Your task to perform on an android device: add a contact in the contacts app Image 0: 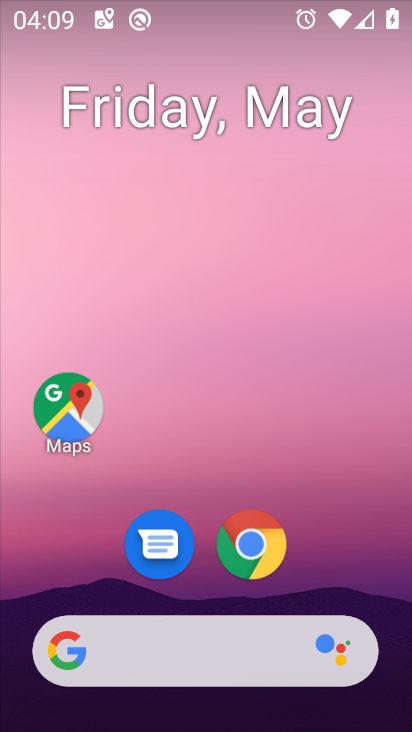
Step 0: drag from (213, 598) to (115, 270)
Your task to perform on an android device: add a contact in the contacts app Image 1: 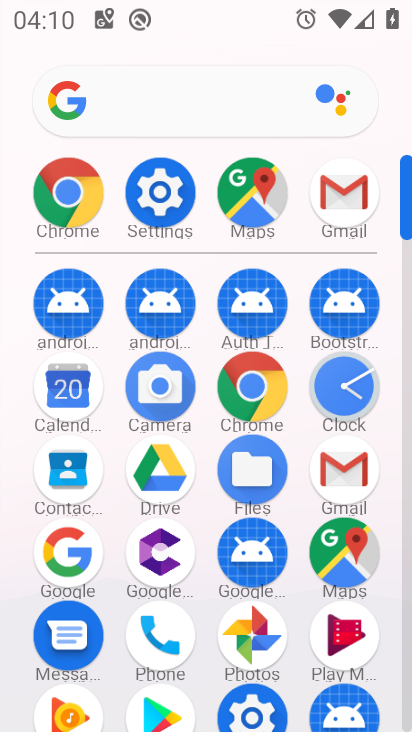
Step 1: click (63, 472)
Your task to perform on an android device: add a contact in the contacts app Image 2: 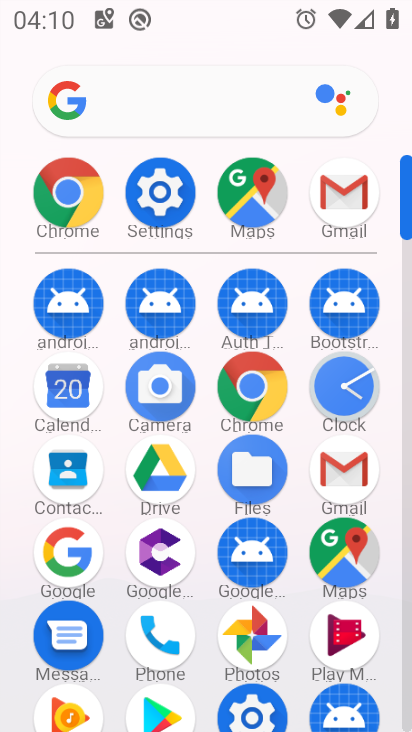
Step 2: click (62, 471)
Your task to perform on an android device: add a contact in the contacts app Image 3: 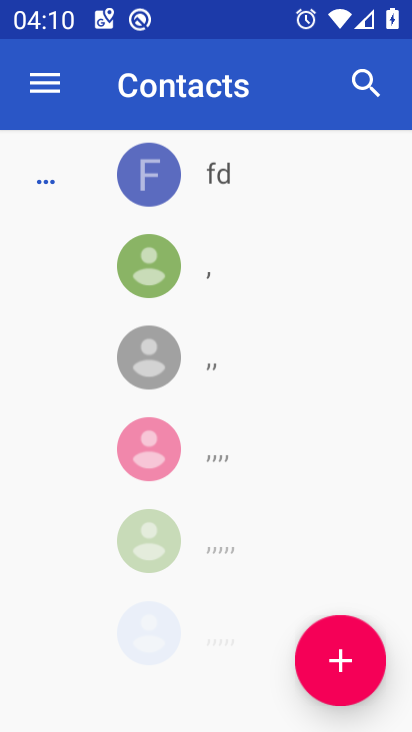
Step 3: click (61, 470)
Your task to perform on an android device: add a contact in the contacts app Image 4: 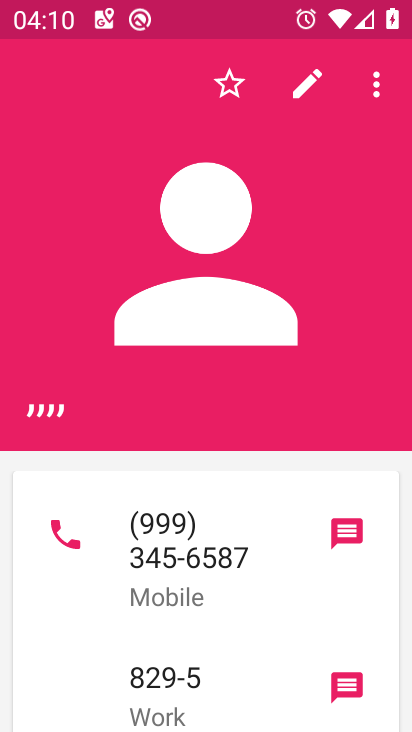
Step 4: press back button
Your task to perform on an android device: add a contact in the contacts app Image 5: 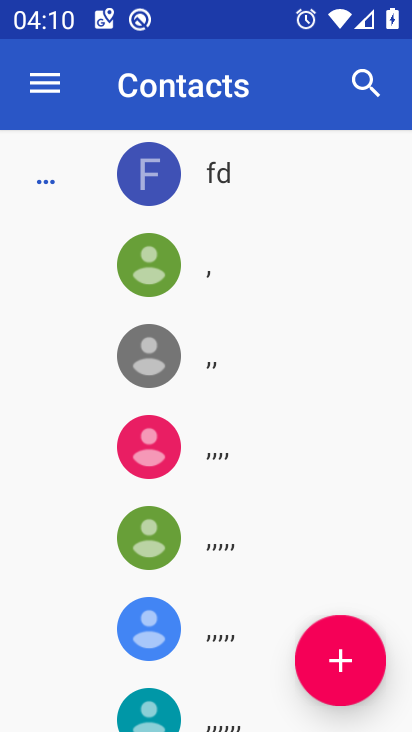
Step 5: click (329, 652)
Your task to perform on an android device: add a contact in the contacts app Image 6: 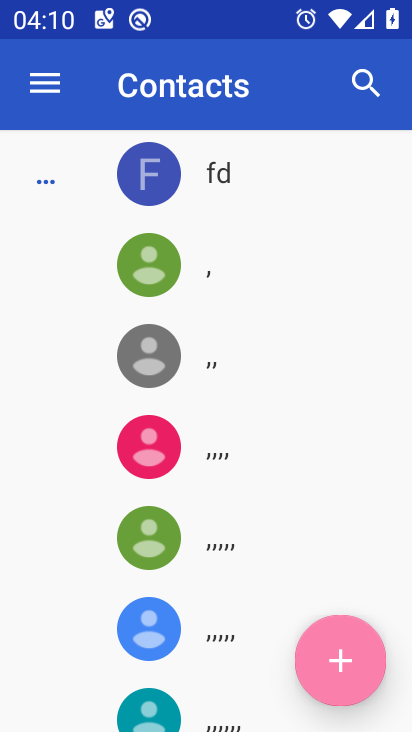
Step 6: click (333, 658)
Your task to perform on an android device: add a contact in the contacts app Image 7: 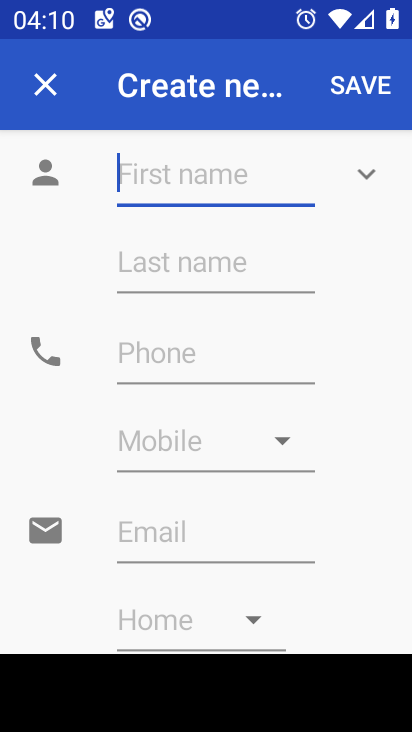
Step 7: type "jhbbvffkjvfdjkvji"
Your task to perform on an android device: add a contact in the contacts app Image 8: 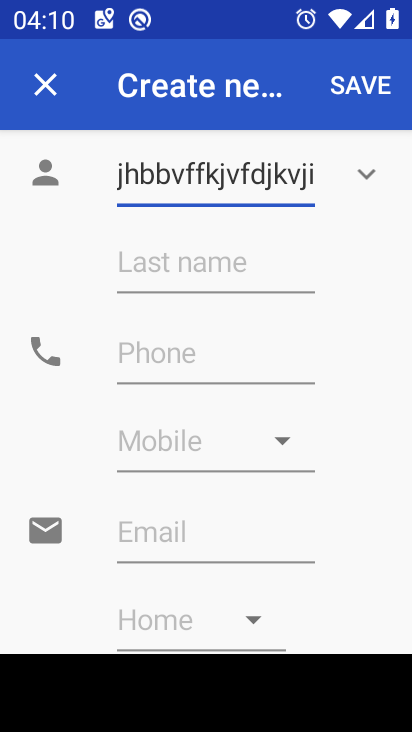
Step 8: click (153, 353)
Your task to perform on an android device: add a contact in the contacts app Image 9: 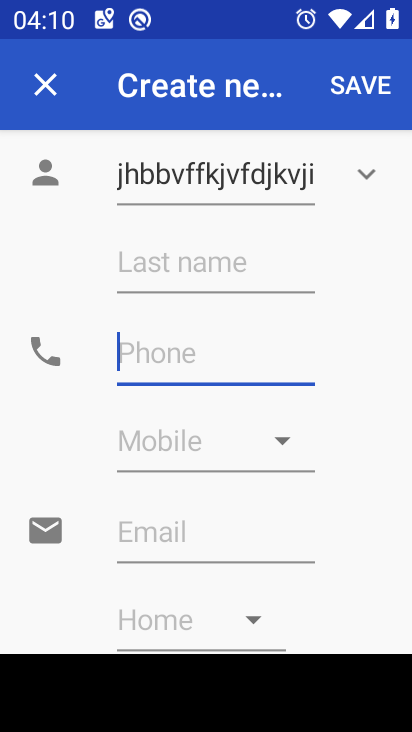
Step 9: type "678876987489274"
Your task to perform on an android device: add a contact in the contacts app Image 10: 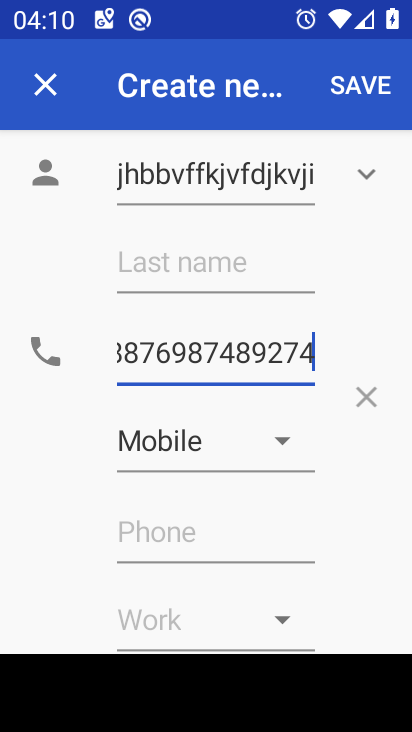
Step 10: click (338, 89)
Your task to perform on an android device: add a contact in the contacts app Image 11: 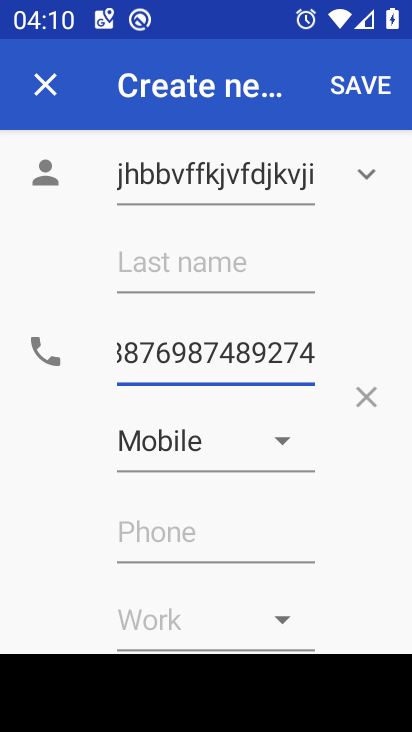
Step 11: click (338, 89)
Your task to perform on an android device: add a contact in the contacts app Image 12: 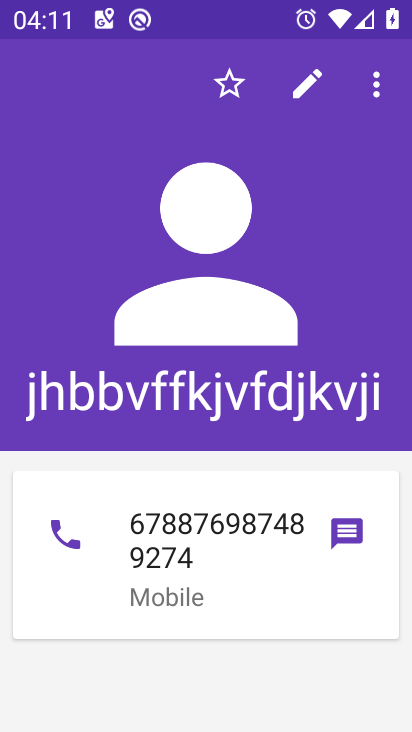
Step 12: press back button
Your task to perform on an android device: add a contact in the contacts app Image 13: 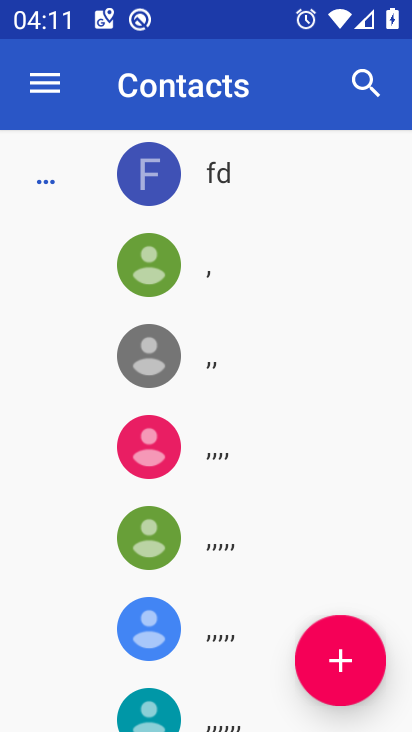
Step 13: click (333, 654)
Your task to perform on an android device: add a contact in the contacts app Image 14: 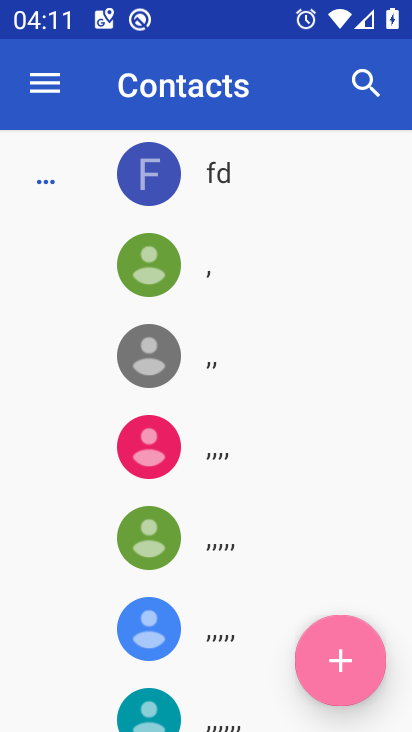
Step 14: click (333, 654)
Your task to perform on an android device: add a contact in the contacts app Image 15: 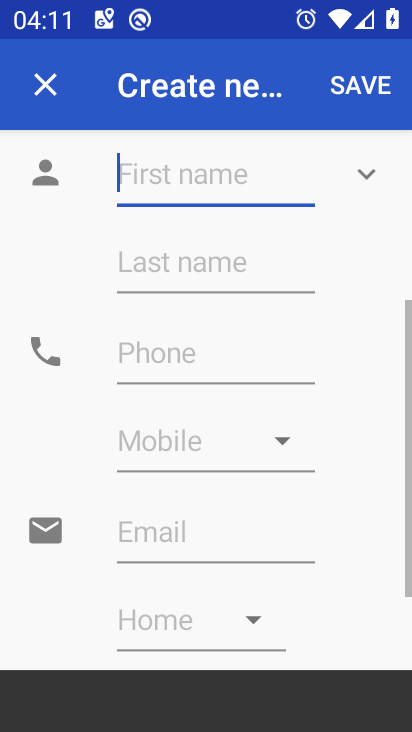
Step 15: click (335, 655)
Your task to perform on an android device: add a contact in the contacts app Image 16: 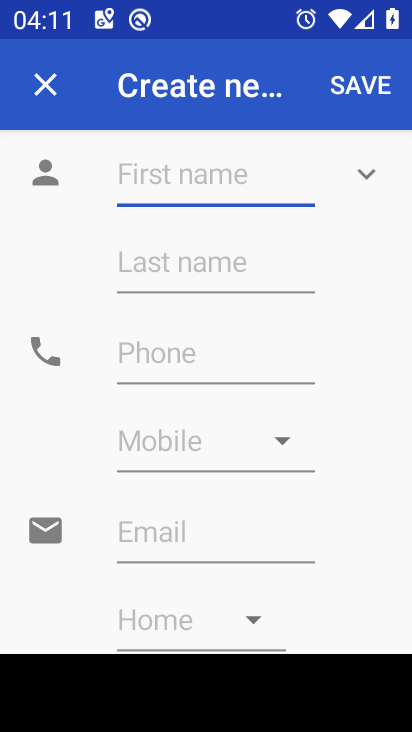
Step 16: type "hgjhbjhdsbcjh"
Your task to perform on an android device: add a contact in the contacts app Image 17: 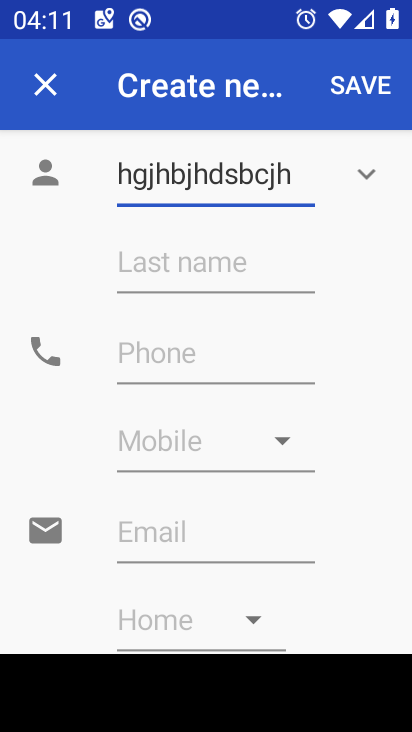
Step 17: click (136, 366)
Your task to perform on an android device: add a contact in the contacts app Image 18: 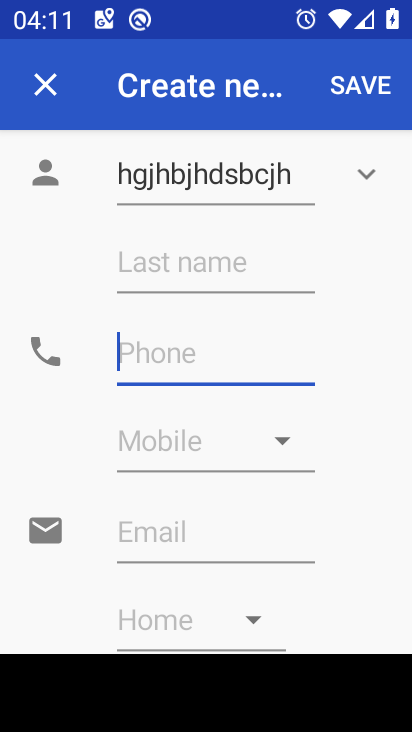
Step 18: click (136, 366)
Your task to perform on an android device: add a contact in the contacts app Image 19: 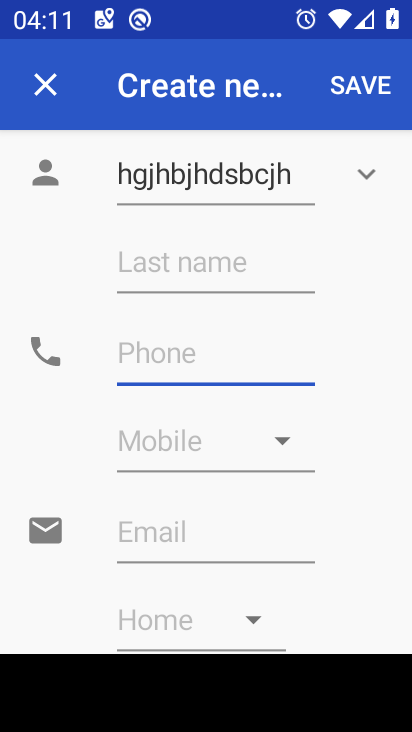
Step 19: type "68768779898798"
Your task to perform on an android device: add a contact in the contacts app Image 20: 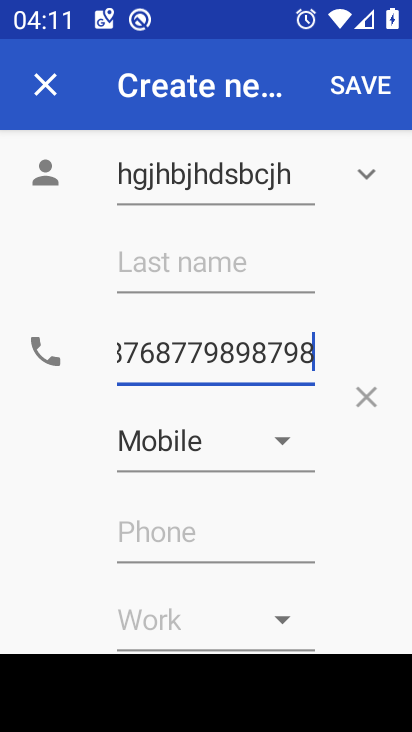
Step 20: click (360, 84)
Your task to perform on an android device: add a contact in the contacts app Image 21: 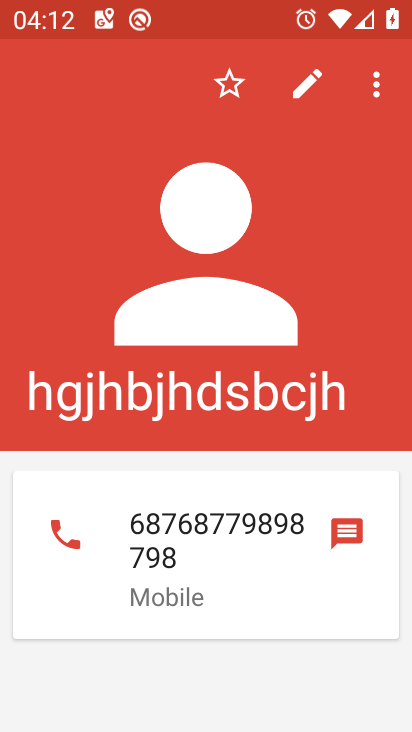
Step 21: task complete